Your task to perform on an android device: install app "Gboard" Image 0: 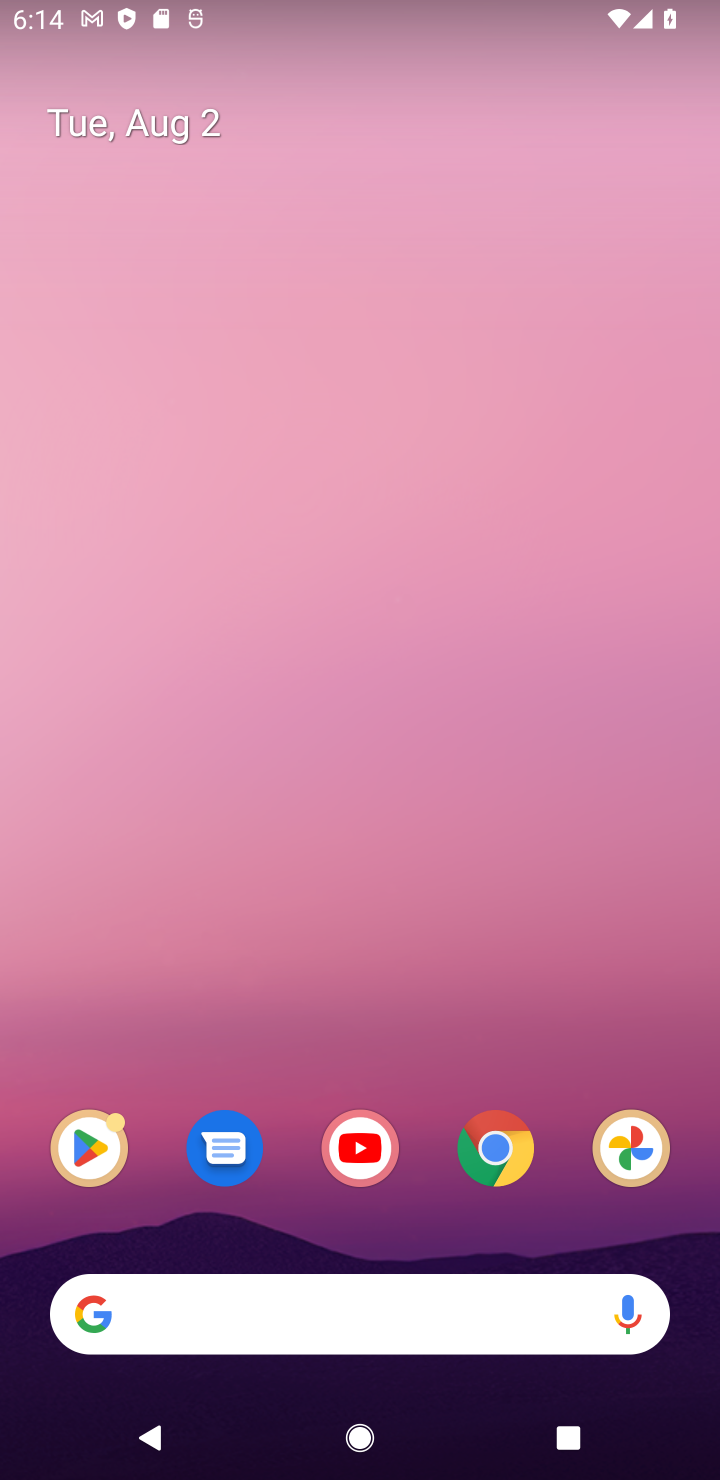
Step 0: drag from (304, 702) to (215, 89)
Your task to perform on an android device: install app "Gboard" Image 1: 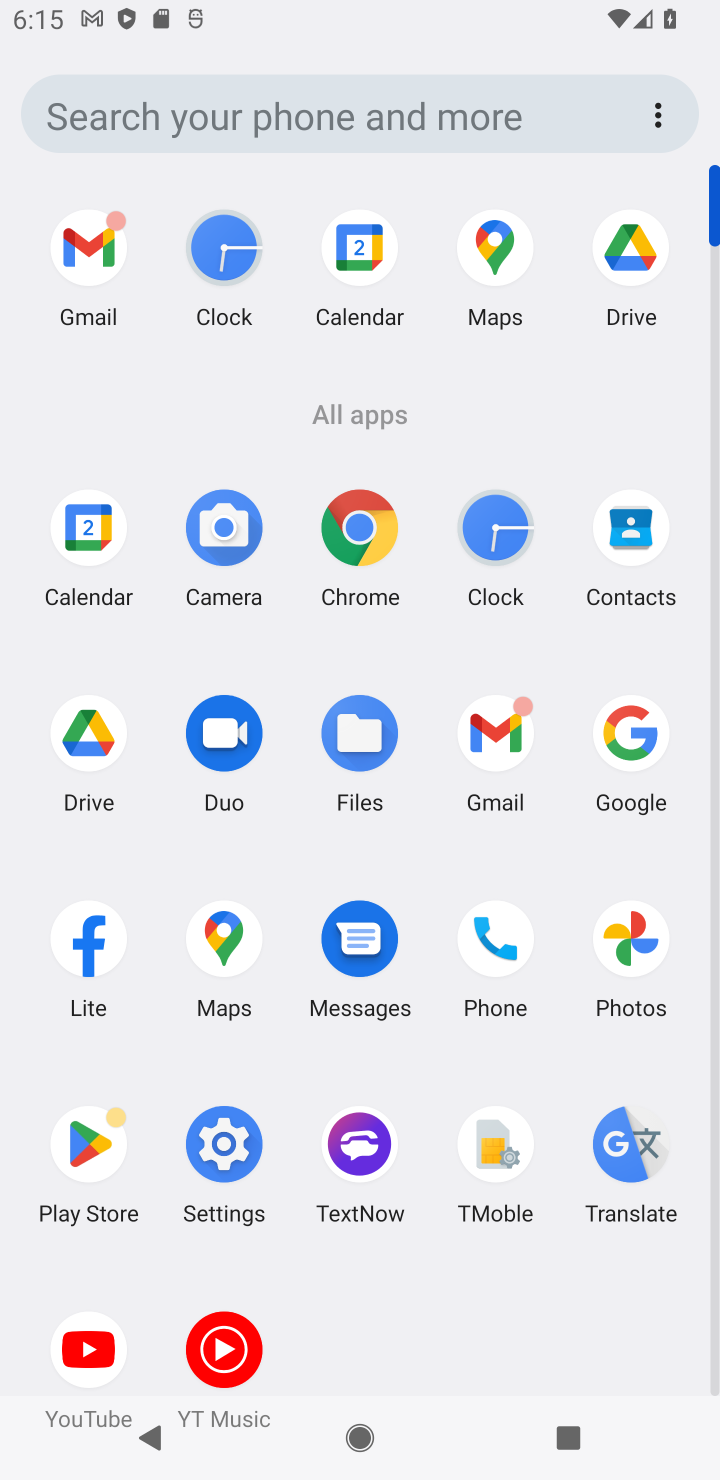
Step 1: click (108, 1137)
Your task to perform on an android device: install app "Gboard" Image 2: 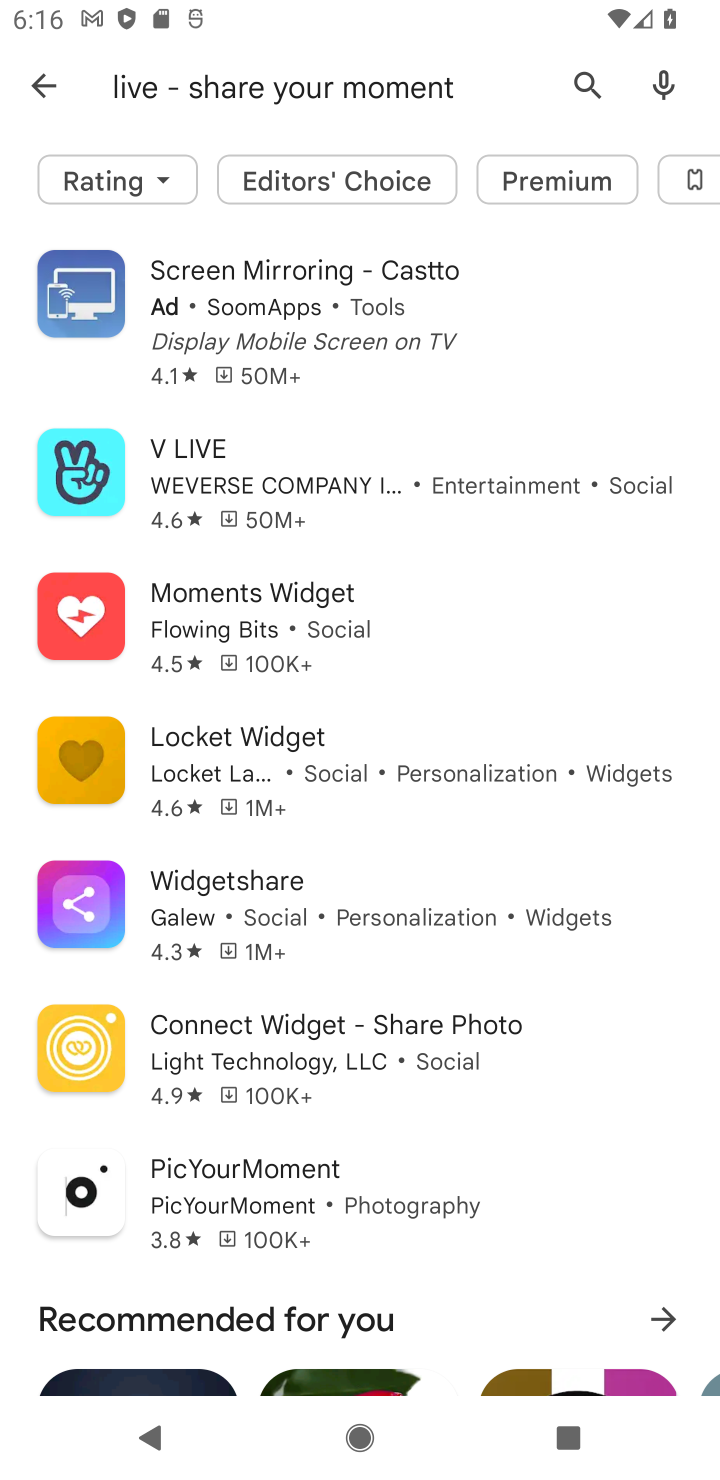
Step 2: press back button
Your task to perform on an android device: install app "Gboard" Image 3: 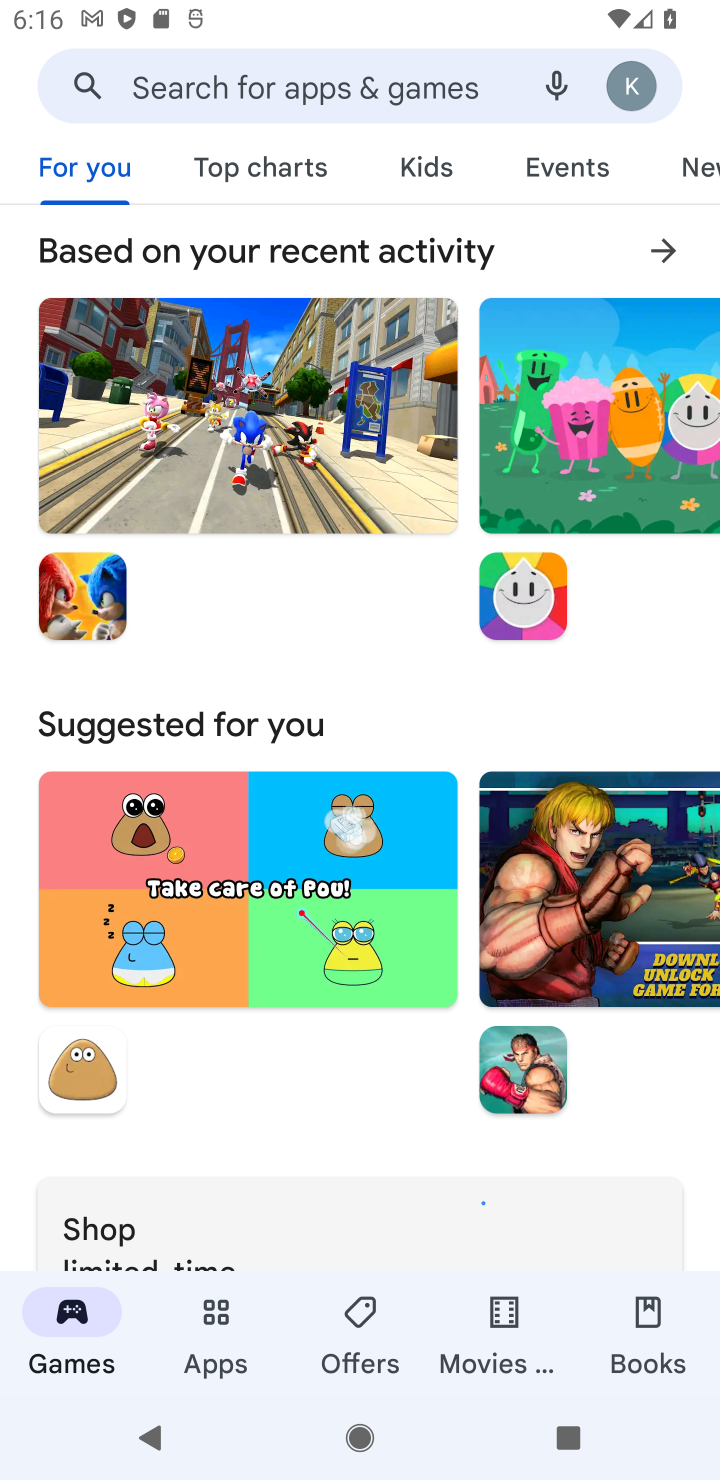
Step 3: click (301, 90)
Your task to perform on an android device: install app "Gboard" Image 4: 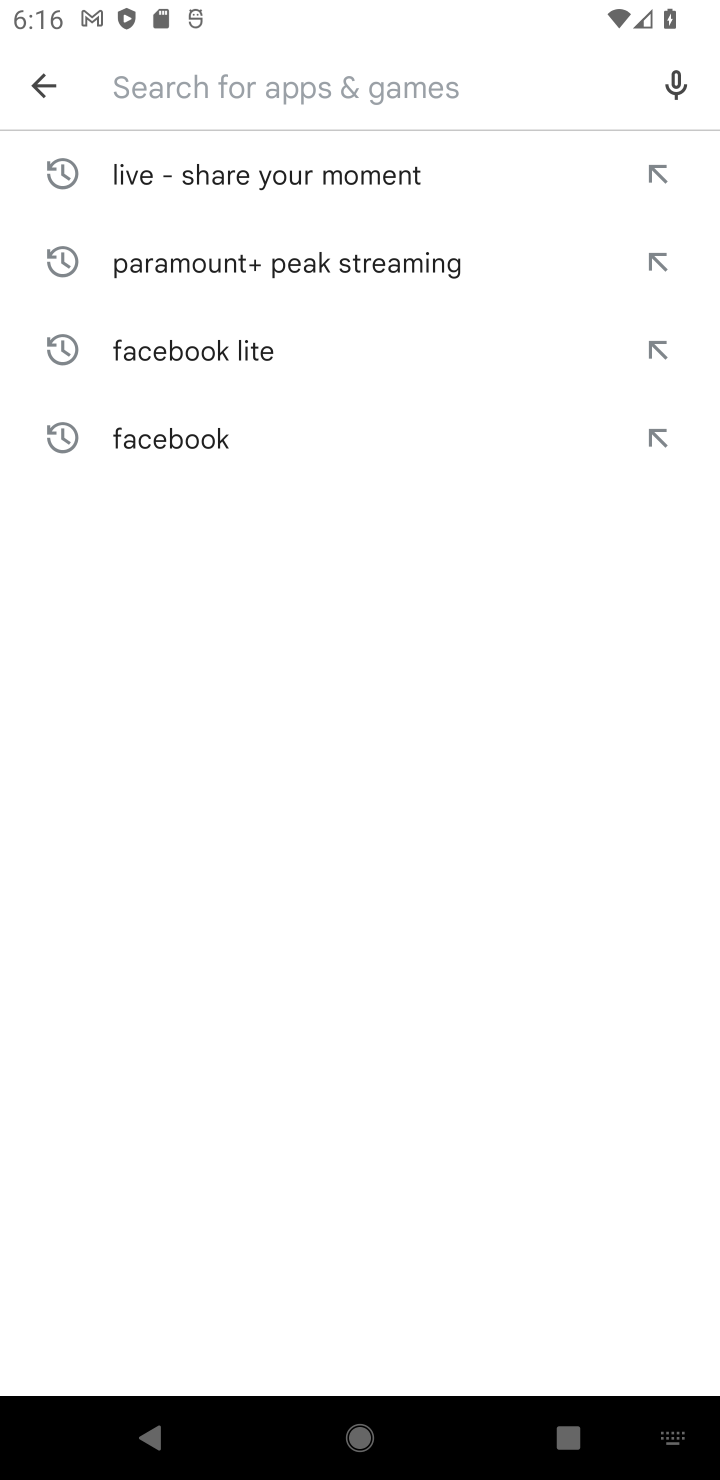
Step 4: type "Gboard"
Your task to perform on an android device: install app "Gboard" Image 5: 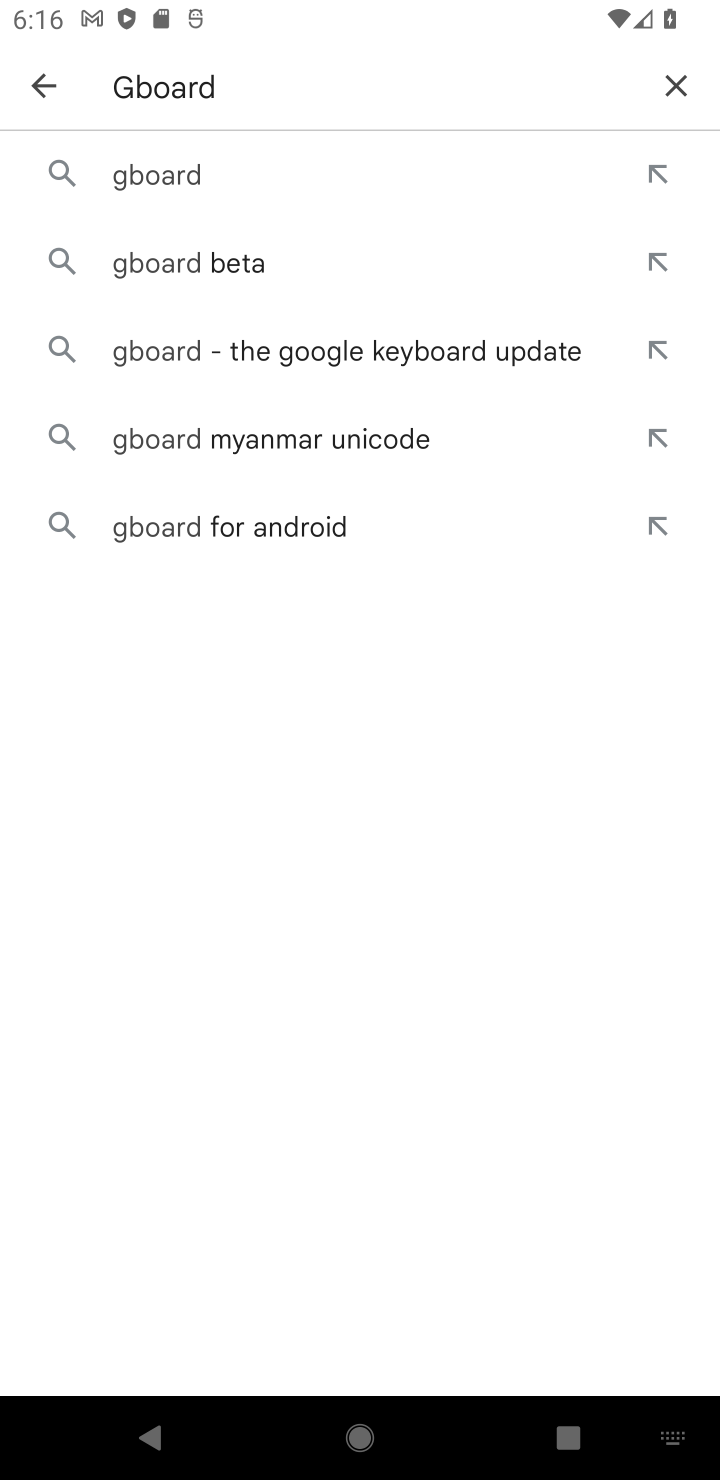
Step 5: click (146, 176)
Your task to perform on an android device: install app "Gboard" Image 6: 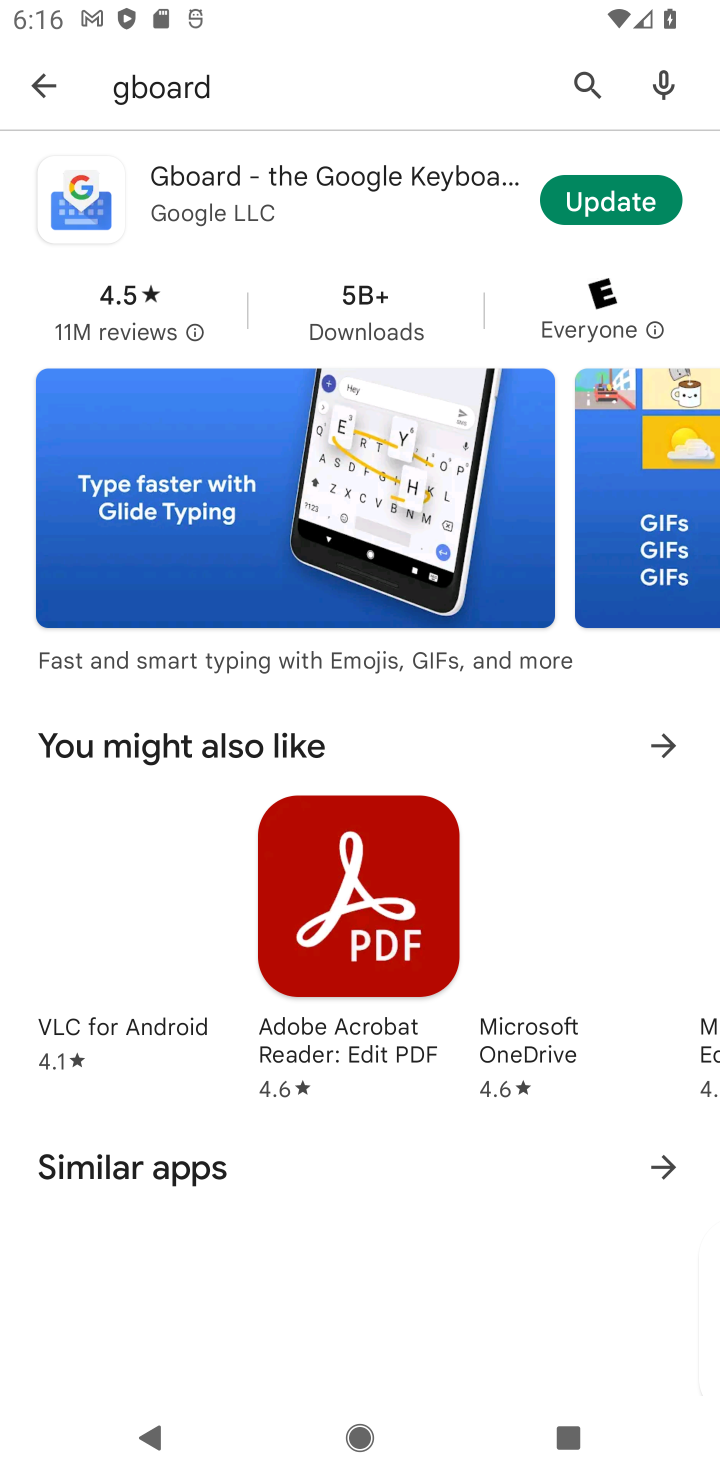
Step 6: click (610, 192)
Your task to perform on an android device: install app "Gboard" Image 7: 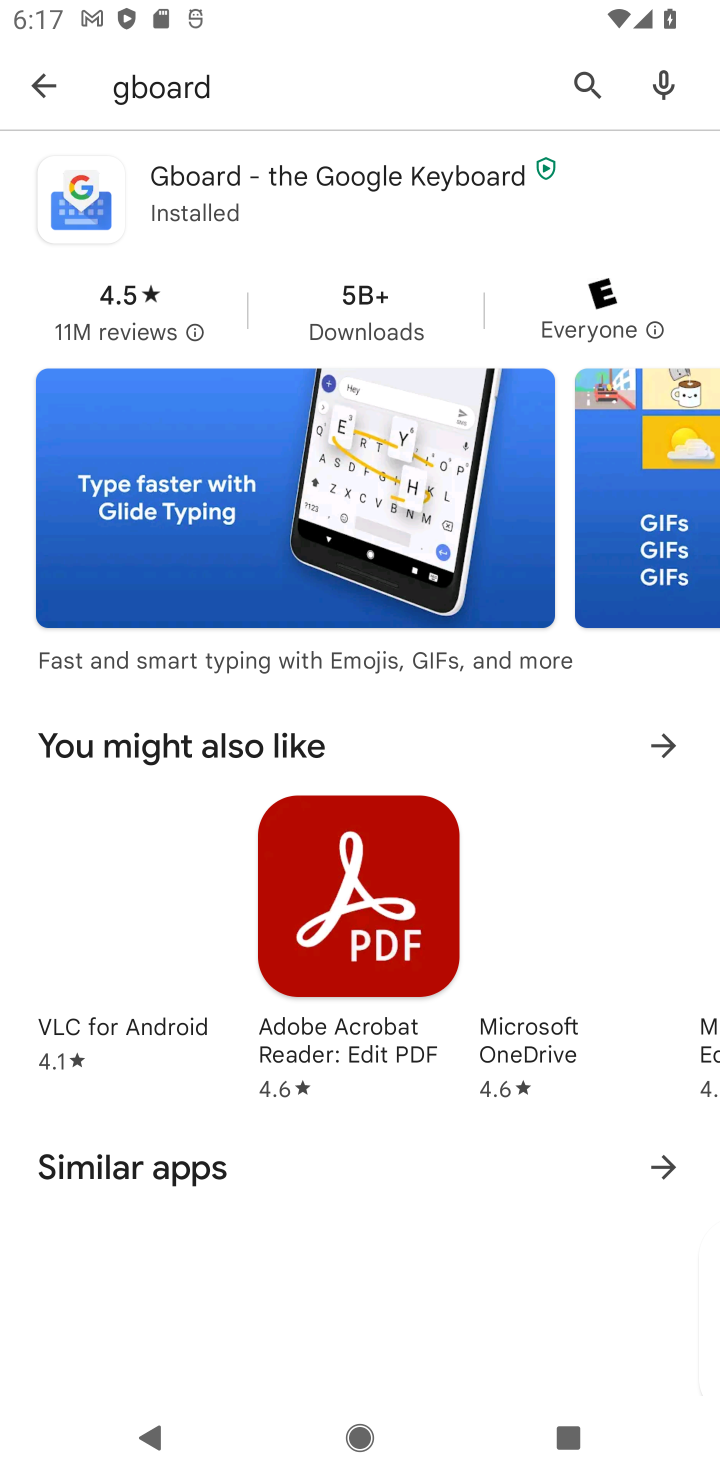
Step 7: click (544, 212)
Your task to perform on an android device: install app "Gboard" Image 8: 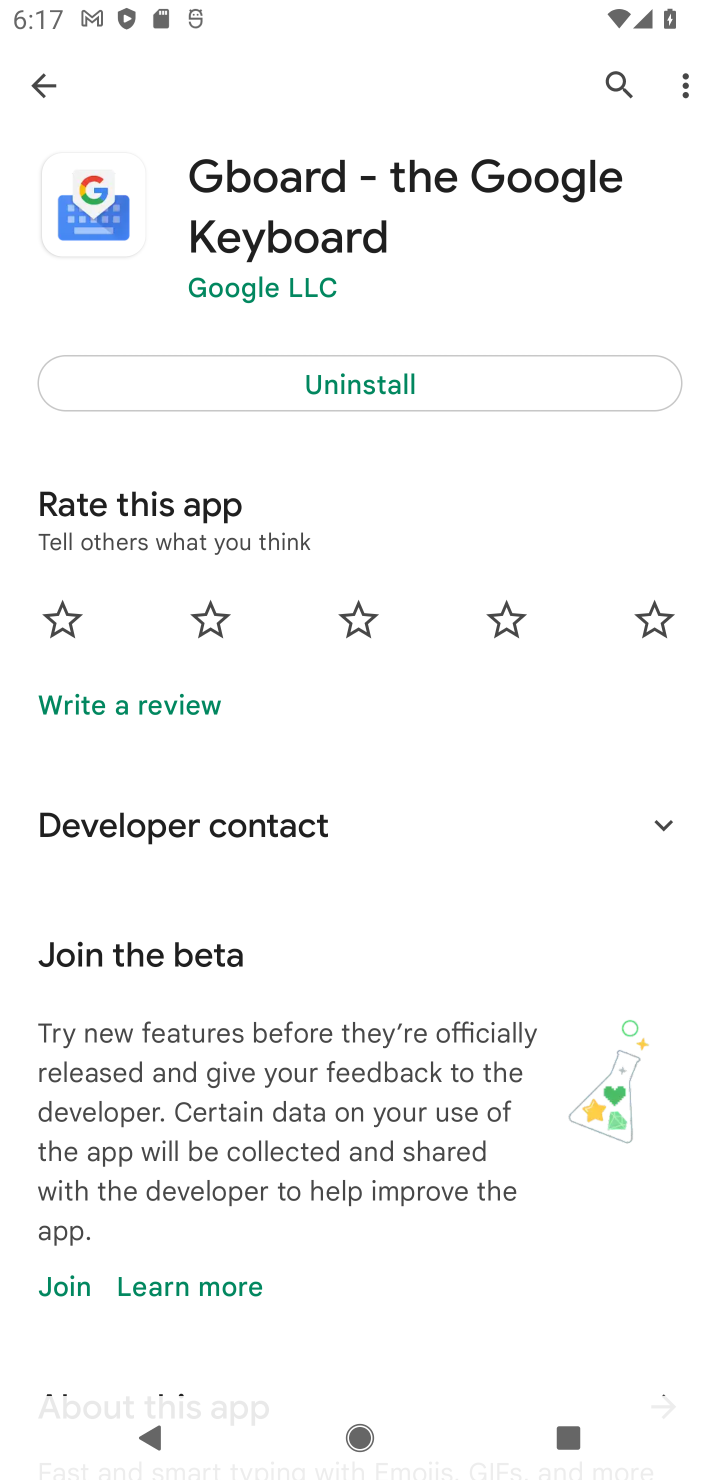
Step 8: task complete